Your task to perform on an android device: Search for sushi restaurants on Maps Image 0: 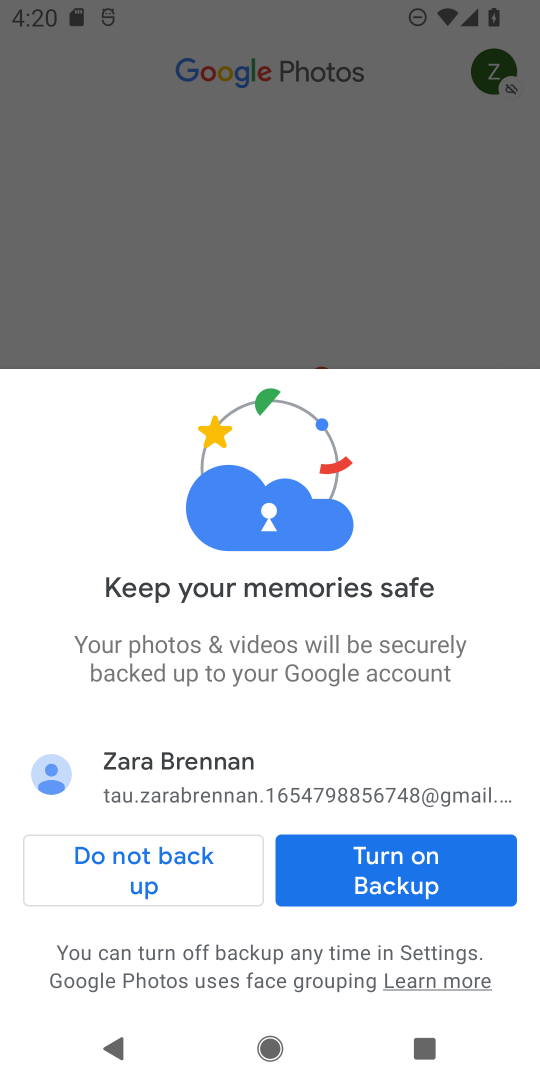
Step 0: click (366, 855)
Your task to perform on an android device: Search for sushi restaurants on Maps Image 1: 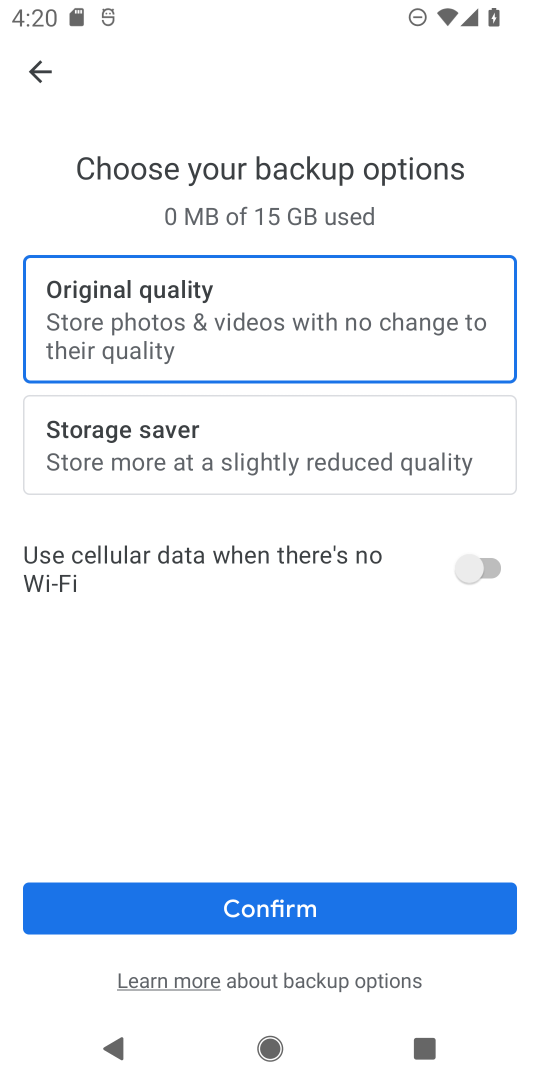
Step 1: press home button
Your task to perform on an android device: Search for sushi restaurants on Maps Image 2: 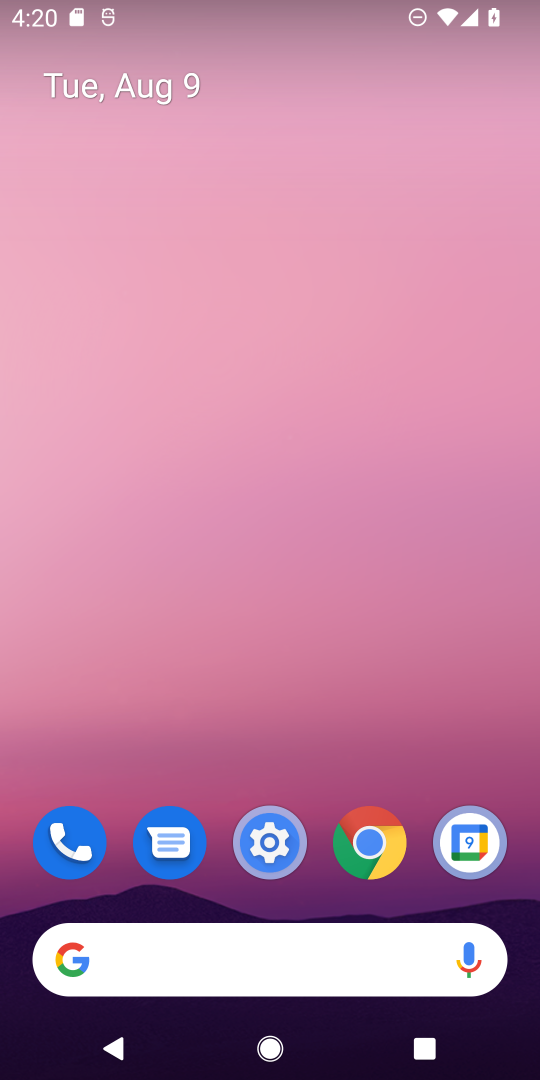
Step 2: drag from (254, 783) to (488, 80)
Your task to perform on an android device: Search for sushi restaurants on Maps Image 3: 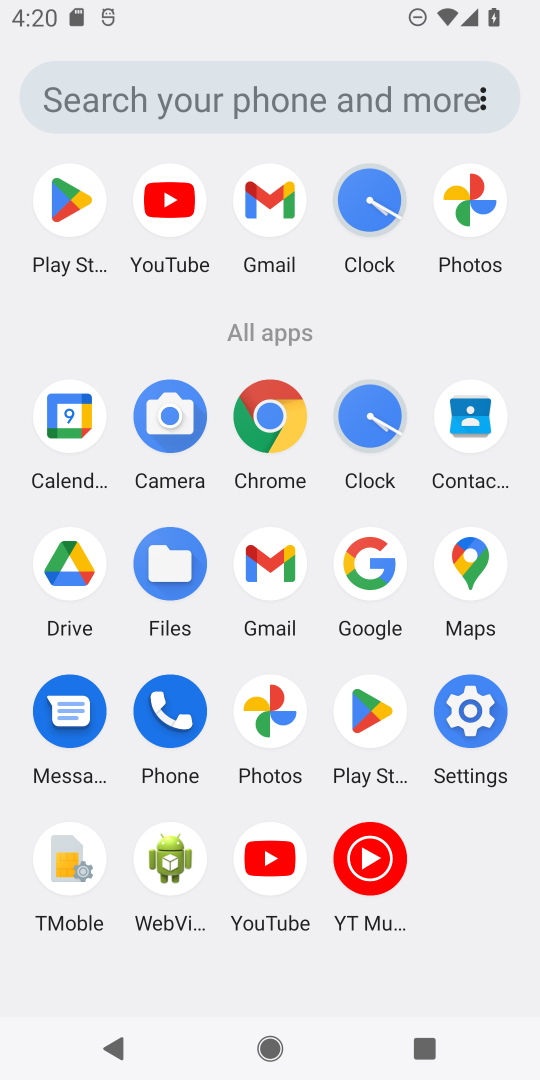
Step 3: click (471, 569)
Your task to perform on an android device: Search for sushi restaurants on Maps Image 4: 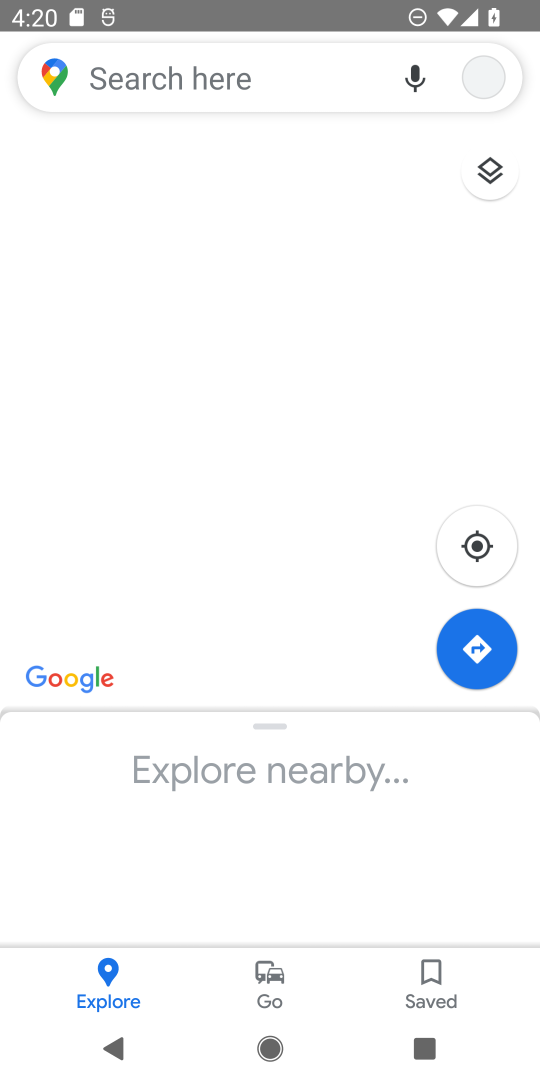
Step 4: click (319, 87)
Your task to perform on an android device: Search for sushi restaurants on Maps Image 5: 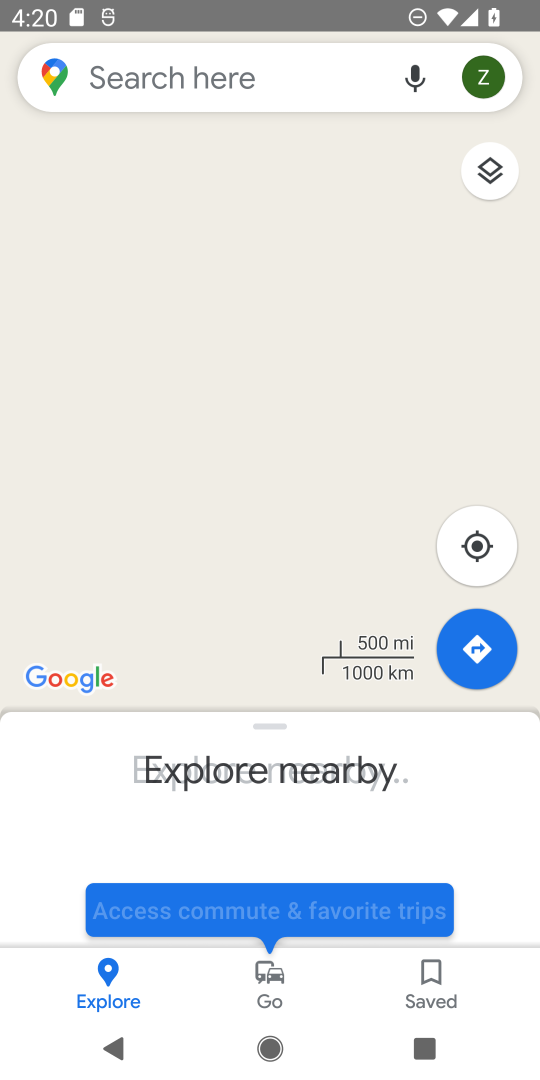
Step 5: click (319, 87)
Your task to perform on an android device: Search for sushi restaurants on Maps Image 6: 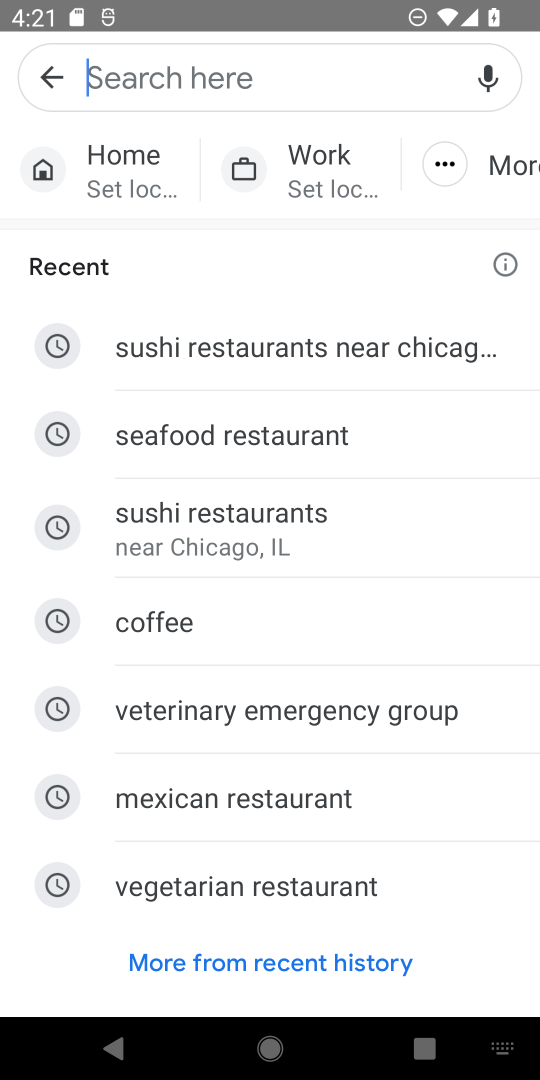
Step 6: type "sushi resta"
Your task to perform on an android device: Search for sushi restaurants on Maps Image 7: 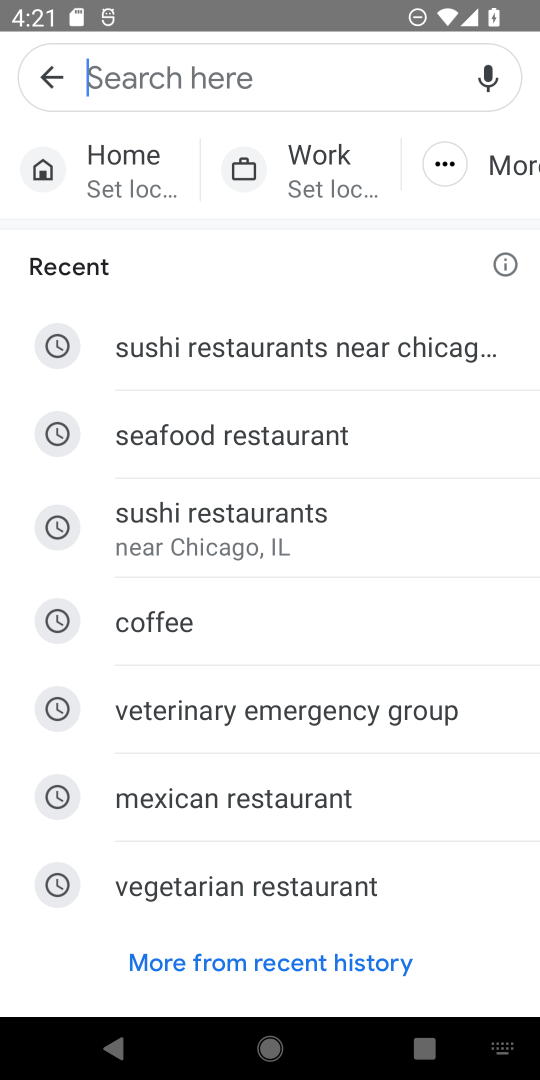
Step 7: click (425, 449)
Your task to perform on an android device: Search for sushi restaurants on Maps Image 8: 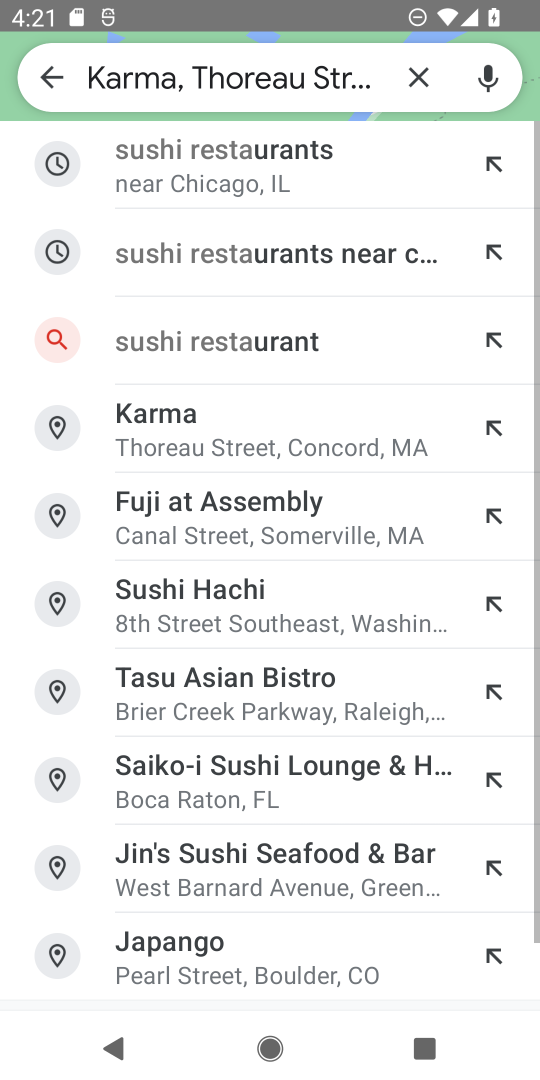
Step 8: click (306, 161)
Your task to perform on an android device: Search for sushi restaurants on Maps Image 9: 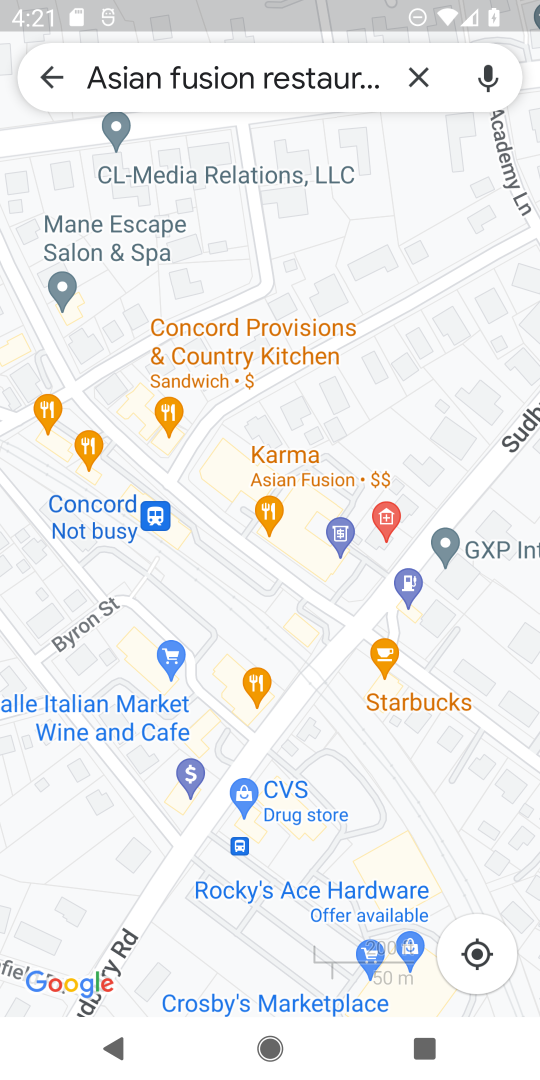
Step 9: task complete